Your task to perform on an android device: Do I have any events tomorrow? Image 0: 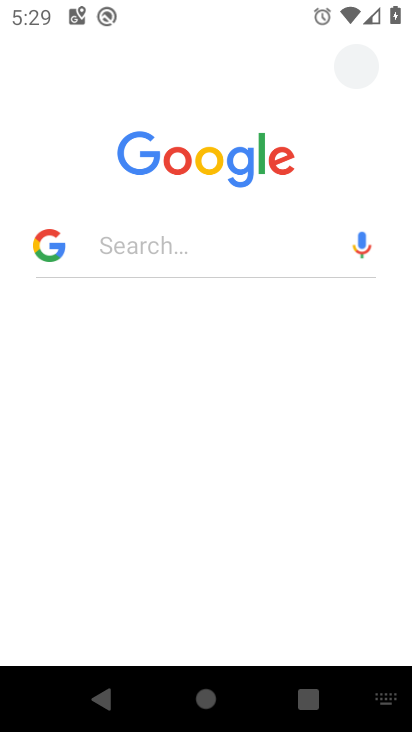
Step 0: press home button
Your task to perform on an android device: Do I have any events tomorrow? Image 1: 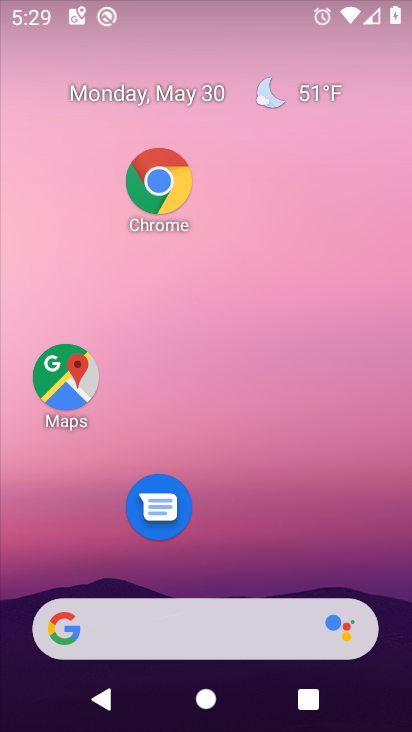
Step 1: drag from (298, 560) to (261, 70)
Your task to perform on an android device: Do I have any events tomorrow? Image 2: 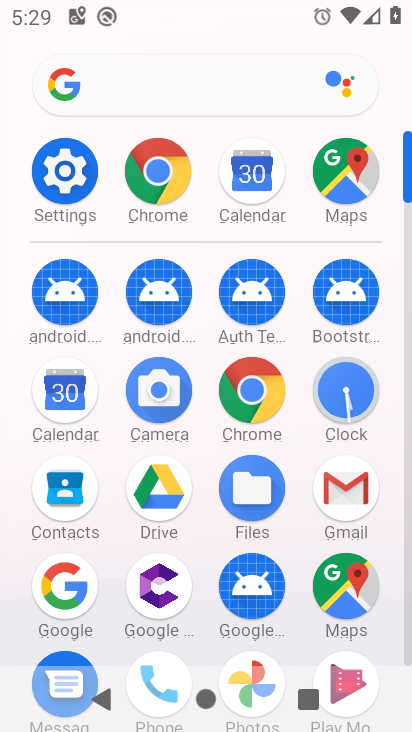
Step 2: click (39, 412)
Your task to perform on an android device: Do I have any events tomorrow? Image 3: 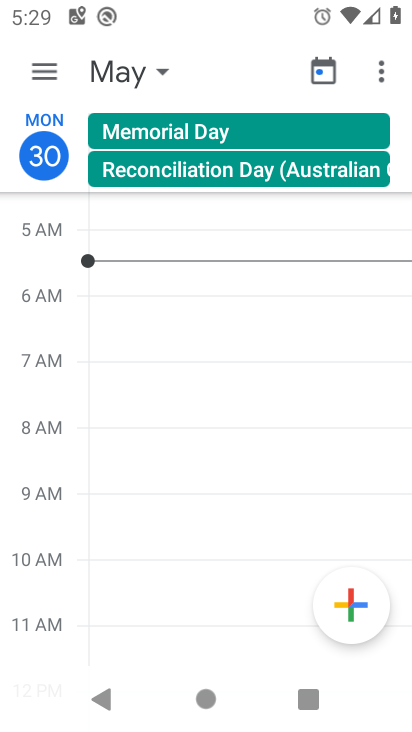
Step 3: click (63, 78)
Your task to perform on an android device: Do I have any events tomorrow? Image 4: 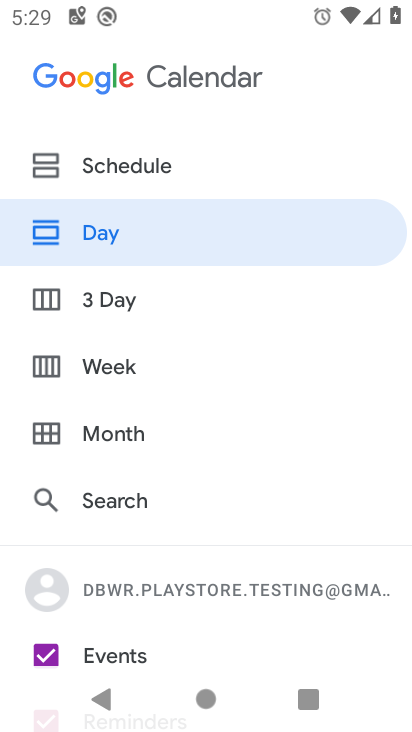
Step 4: click (103, 157)
Your task to perform on an android device: Do I have any events tomorrow? Image 5: 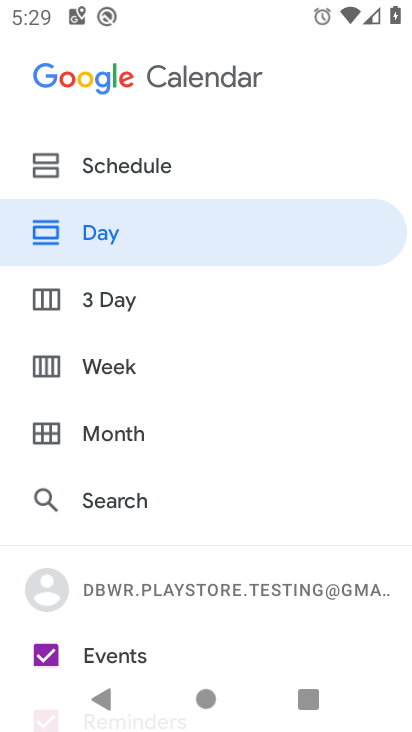
Step 5: click (109, 166)
Your task to perform on an android device: Do I have any events tomorrow? Image 6: 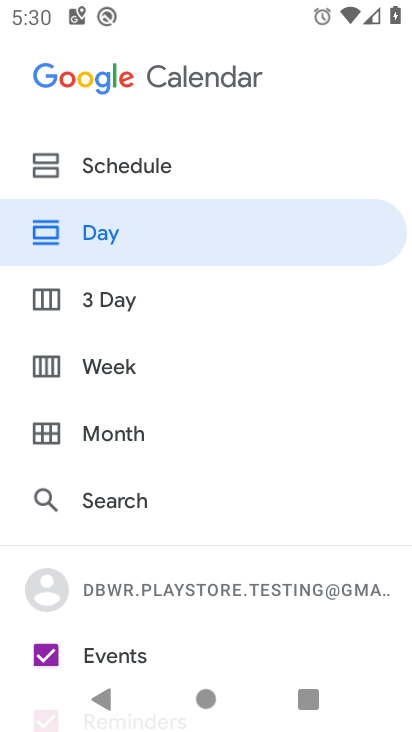
Step 6: click (109, 166)
Your task to perform on an android device: Do I have any events tomorrow? Image 7: 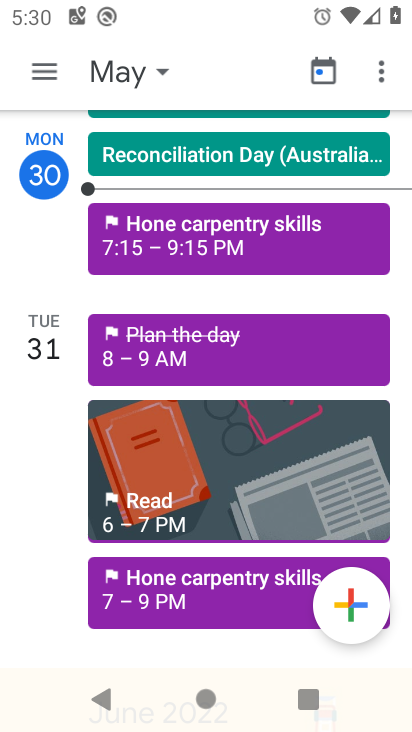
Step 7: task complete